Your task to perform on an android device: Open Android settings Image 0: 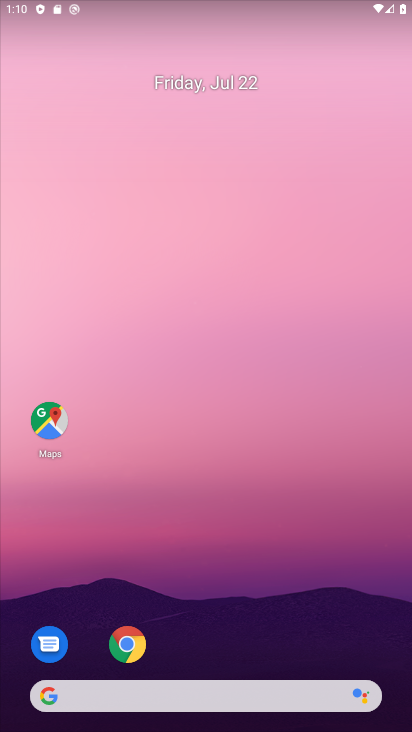
Step 0: drag from (285, 688) to (292, 177)
Your task to perform on an android device: Open Android settings Image 1: 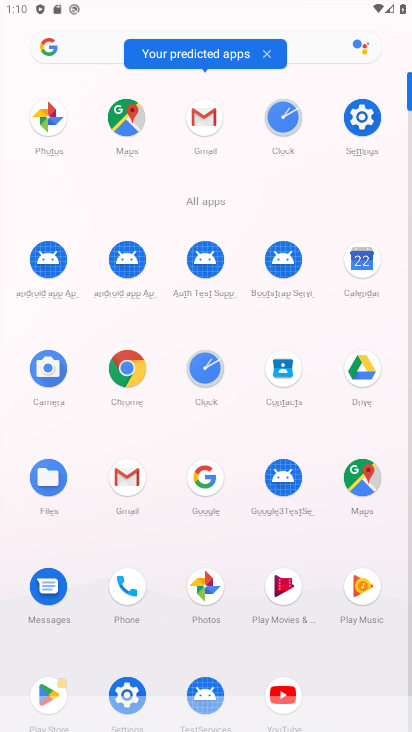
Step 1: click (364, 128)
Your task to perform on an android device: Open Android settings Image 2: 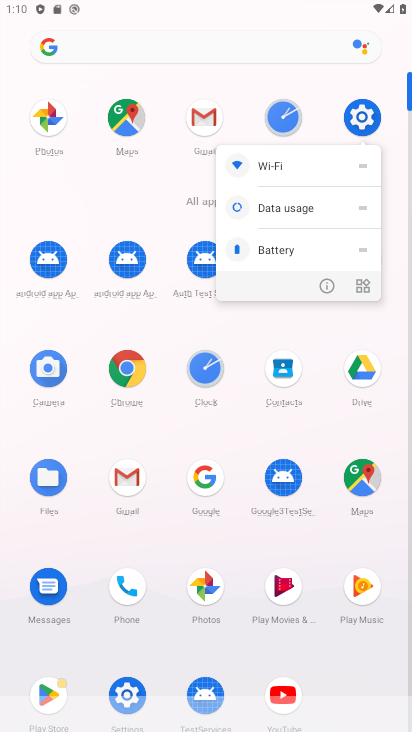
Step 2: click (367, 100)
Your task to perform on an android device: Open Android settings Image 3: 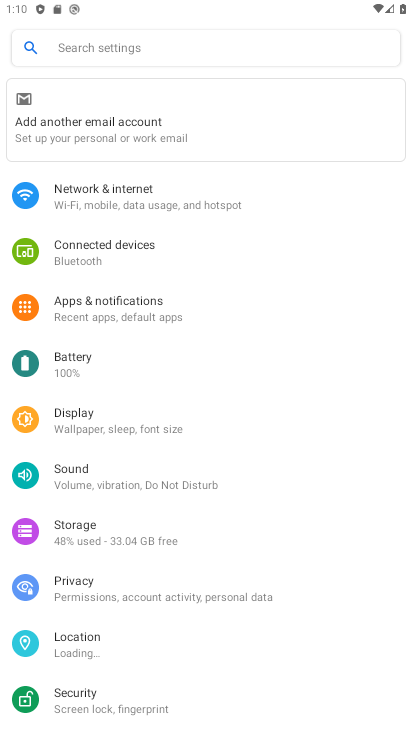
Step 3: task complete